Your task to perform on an android device: View the shopping cart on newegg. Image 0: 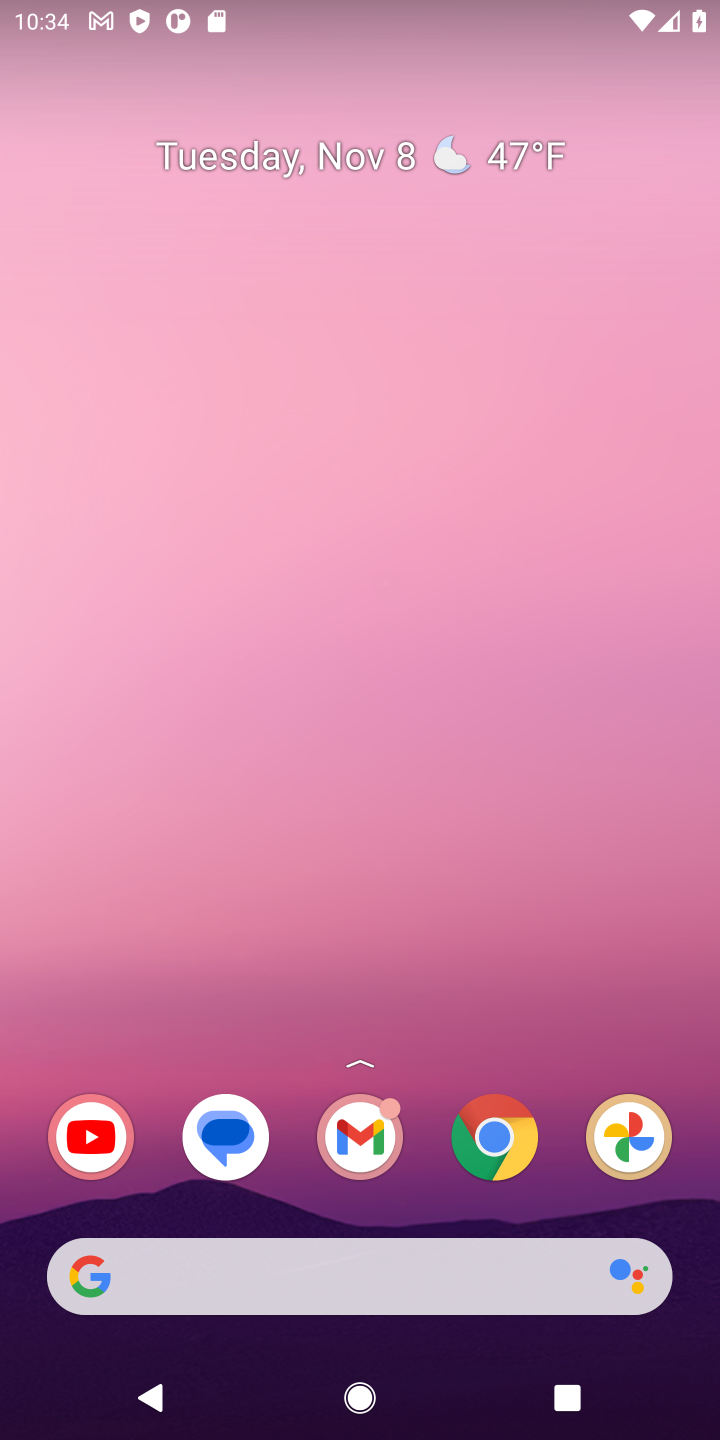
Step 0: click (491, 1139)
Your task to perform on an android device: View the shopping cart on newegg. Image 1: 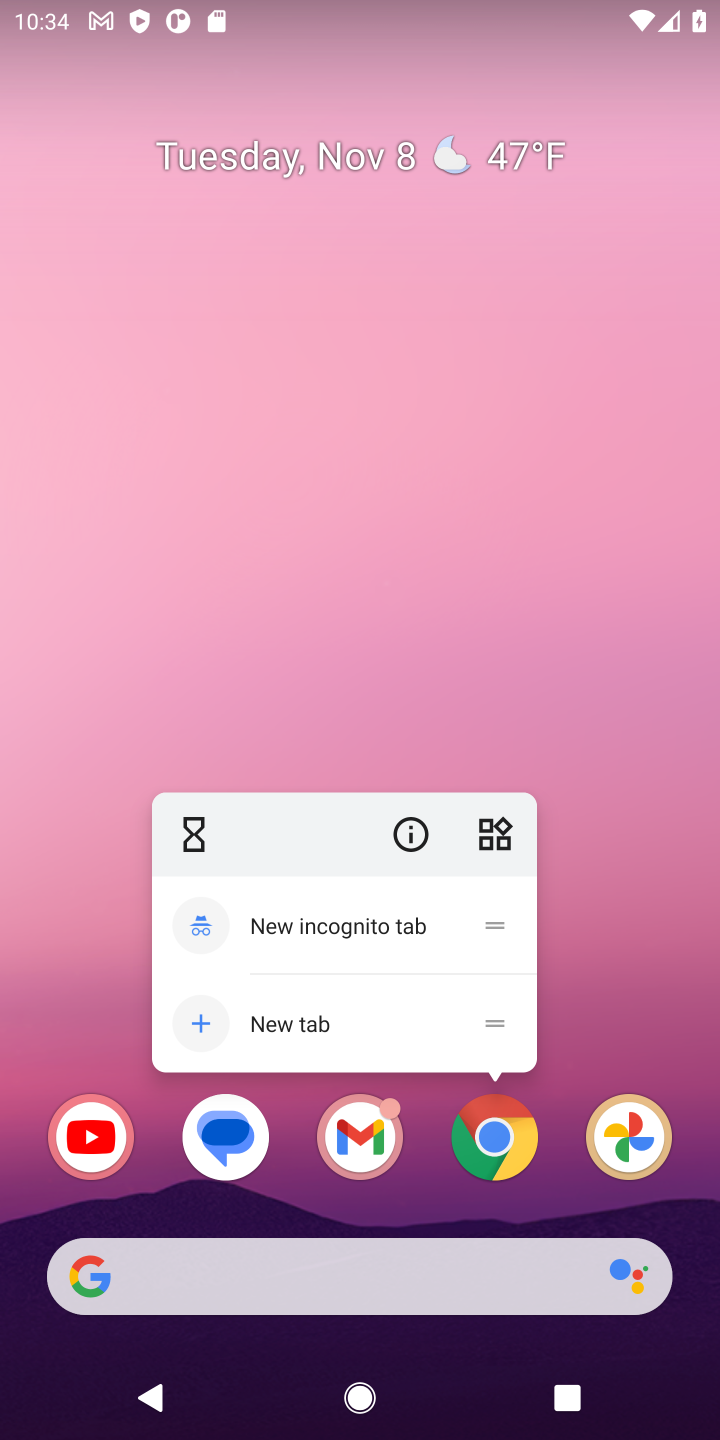
Step 1: click (498, 1140)
Your task to perform on an android device: View the shopping cart on newegg. Image 2: 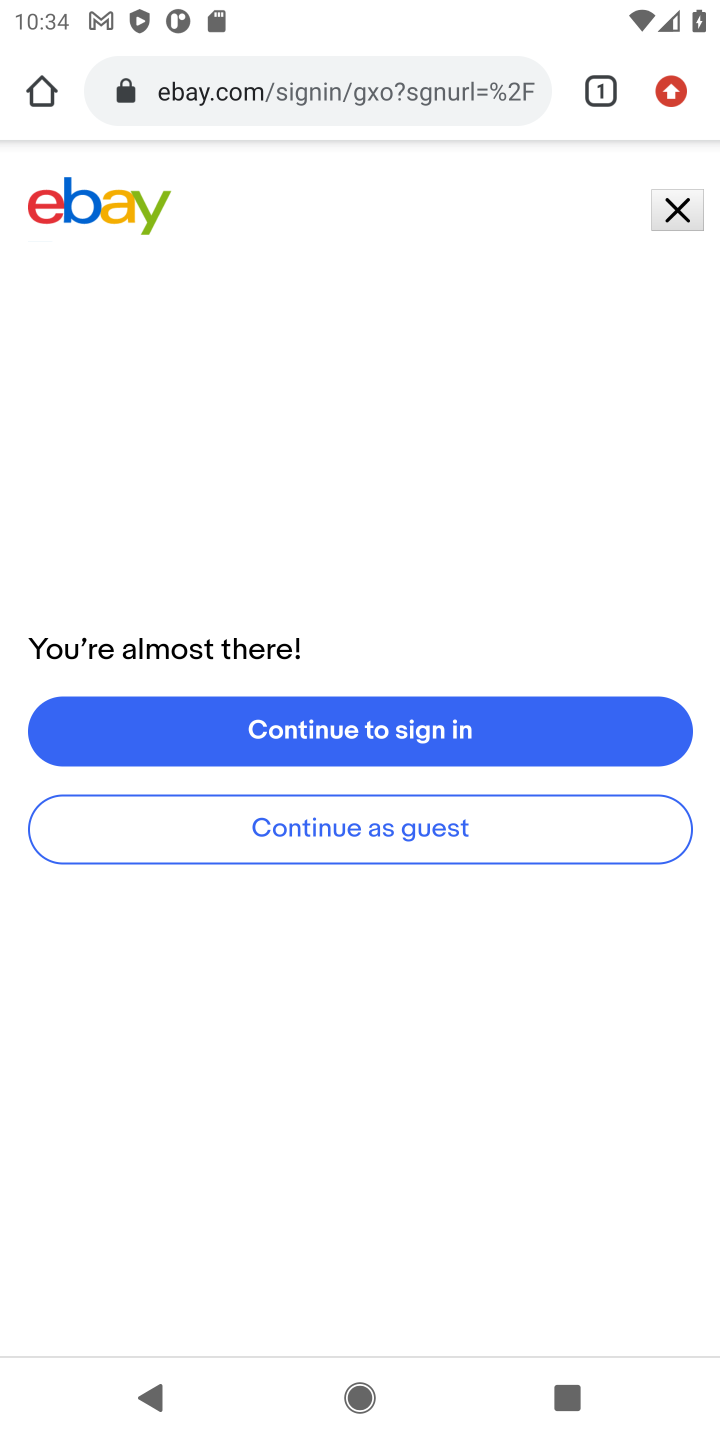
Step 2: click (409, 93)
Your task to perform on an android device: View the shopping cart on newegg. Image 3: 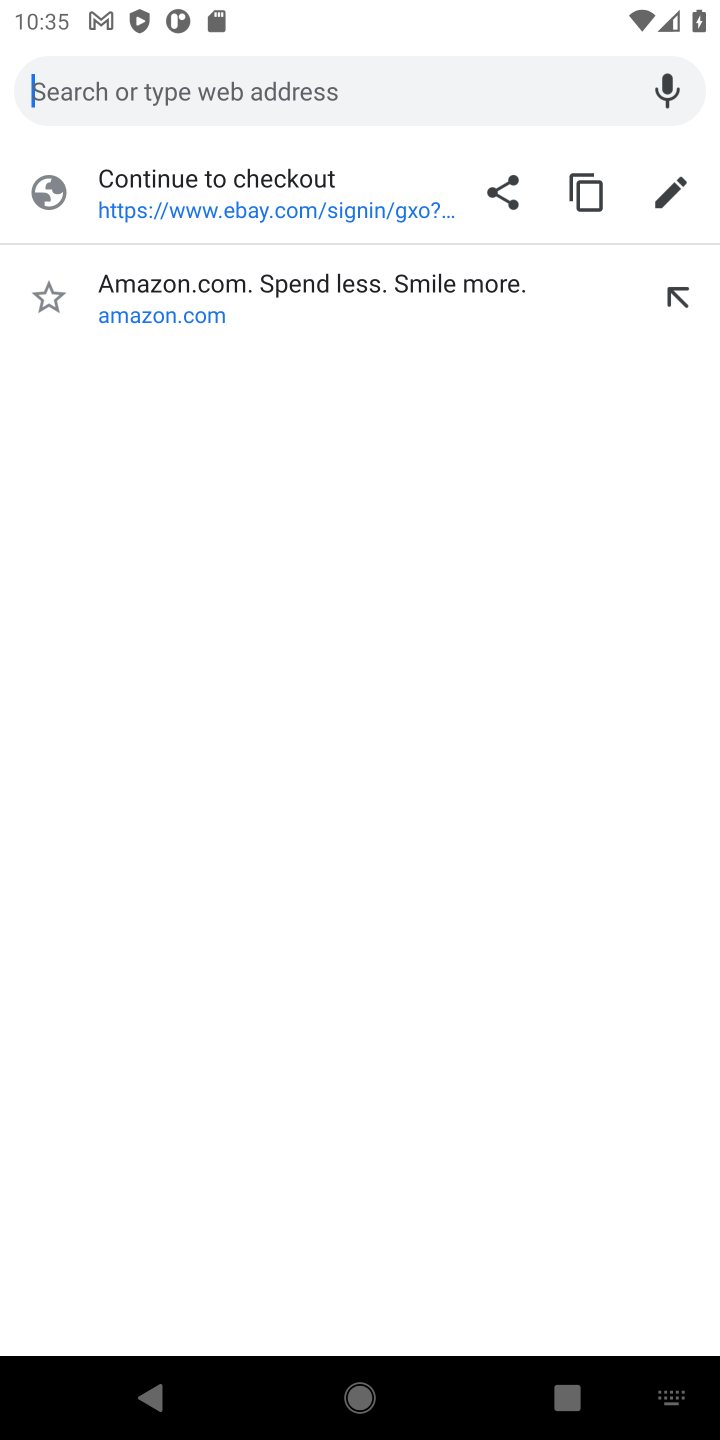
Step 3: type "newegg"
Your task to perform on an android device: View the shopping cart on newegg. Image 4: 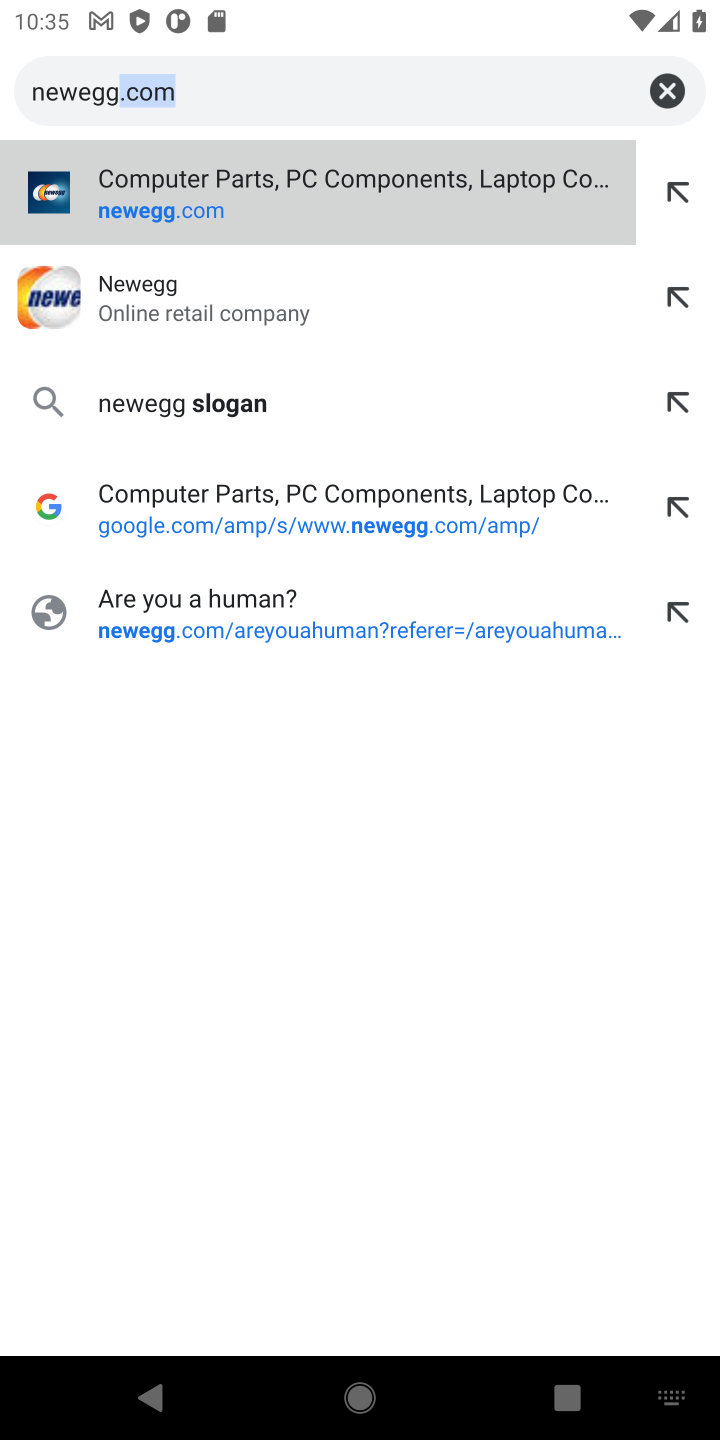
Step 4: click (234, 300)
Your task to perform on an android device: View the shopping cart on newegg. Image 5: 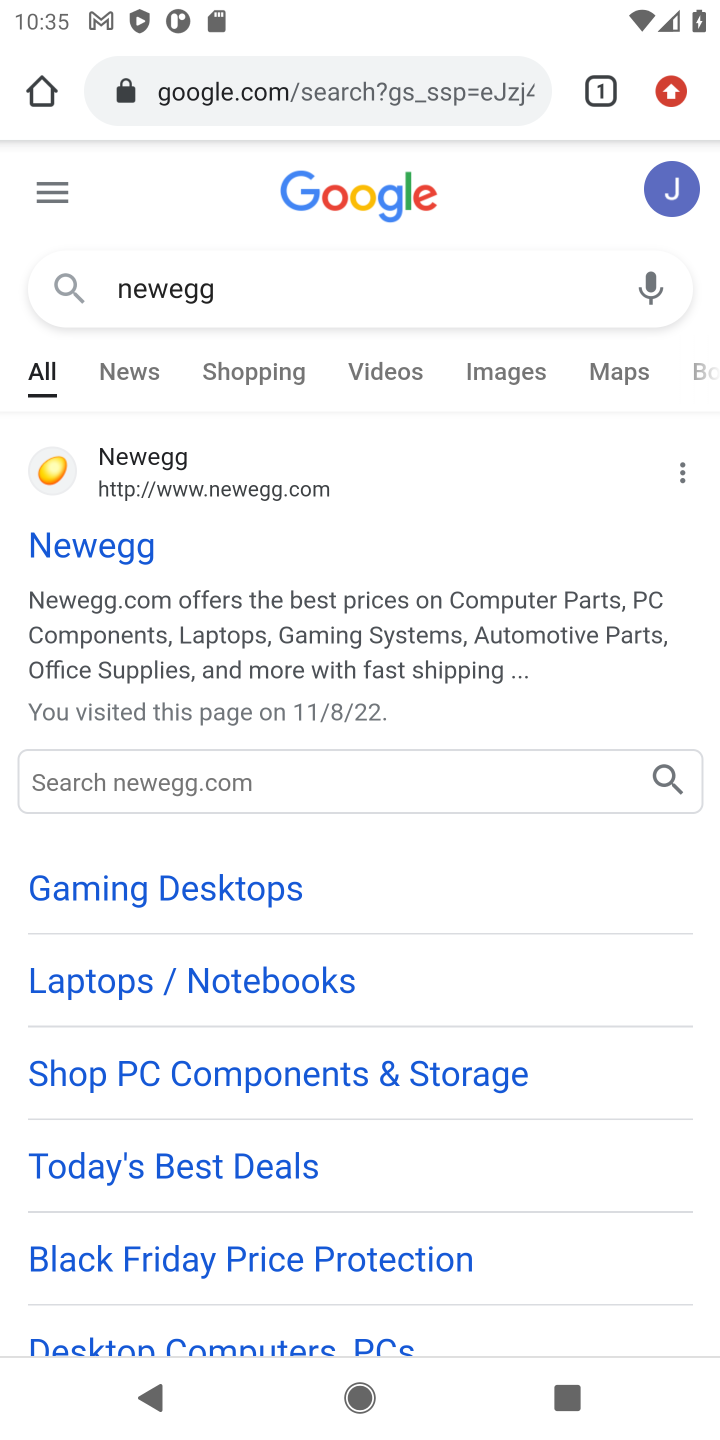
Step 5: click (107, 557)
Your task to perform on an android device: View the shopping cart on newegg. Image 6: 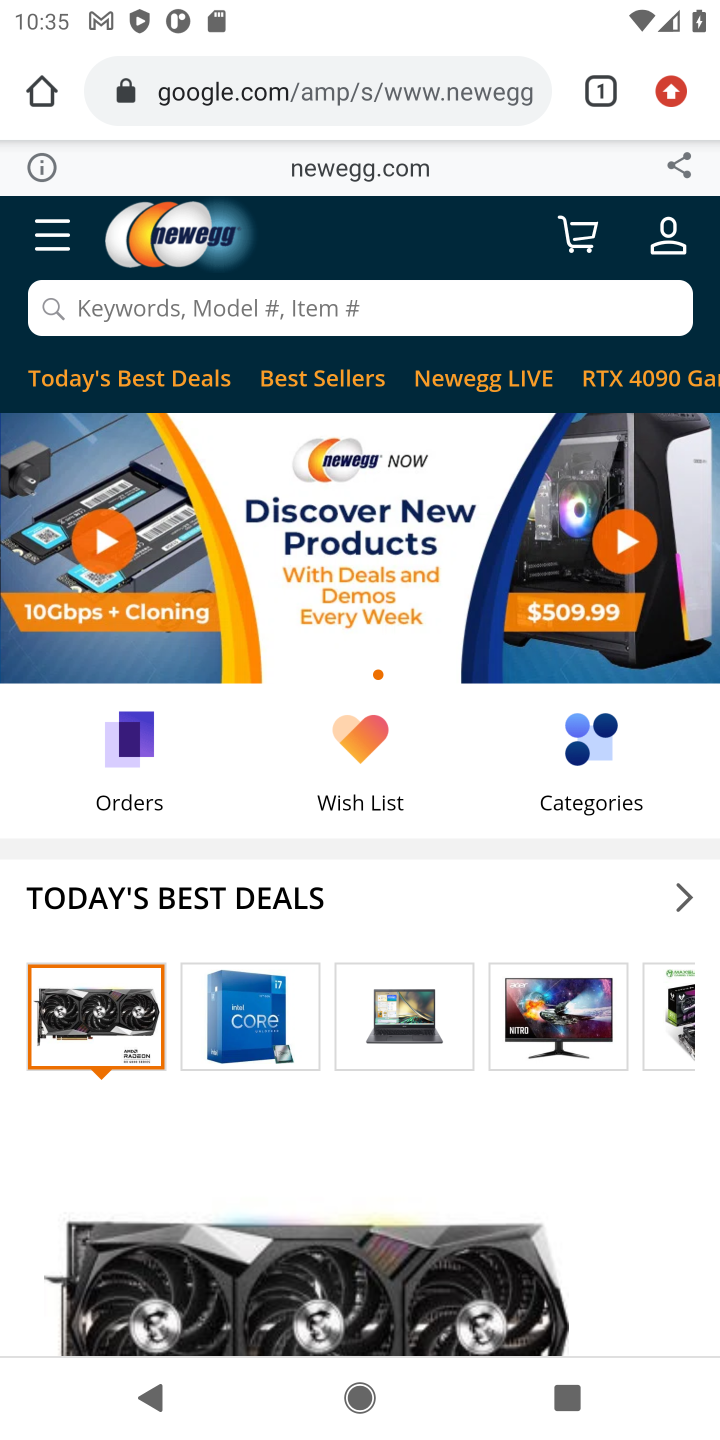
Step 6: click (582, 229)
Your task to perform on an android device: View the shopping cart on newegg. Image 7: 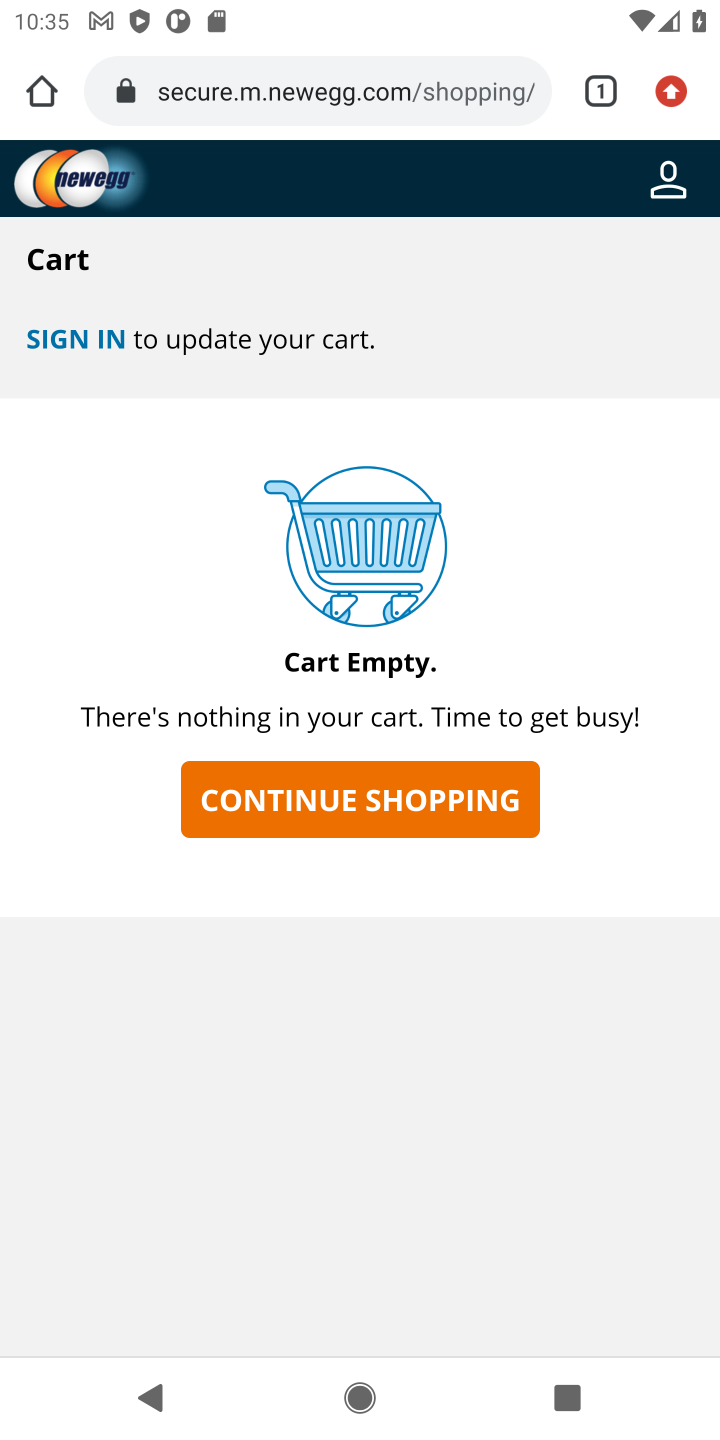
Step 7: task complete